Your task to perform on an android device: Go to network settings Image 0: 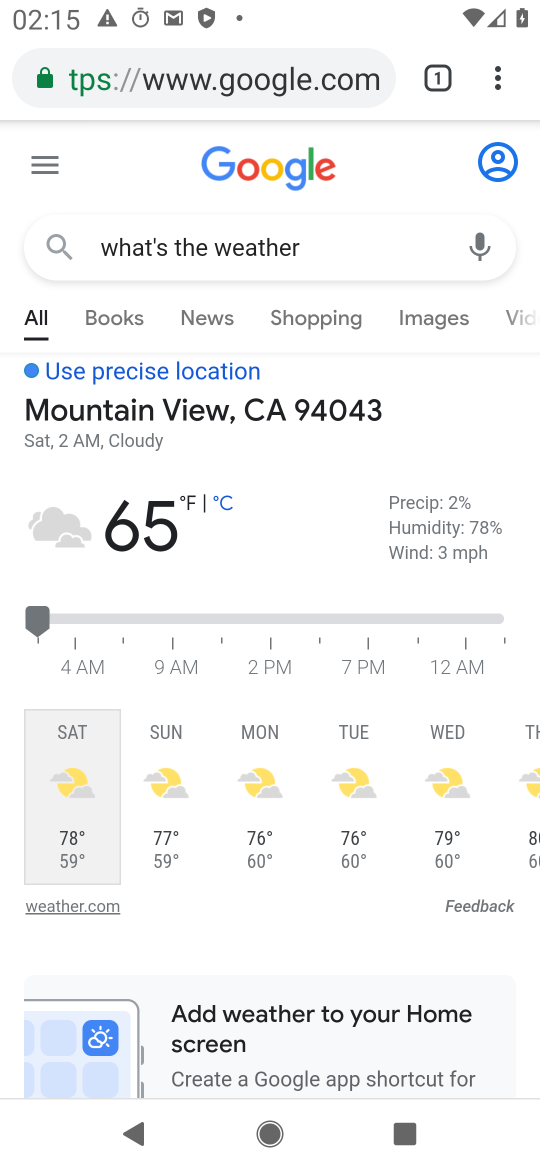
Step 0: press home button
Your task to perform on an android device: Go to network settings Image 1: 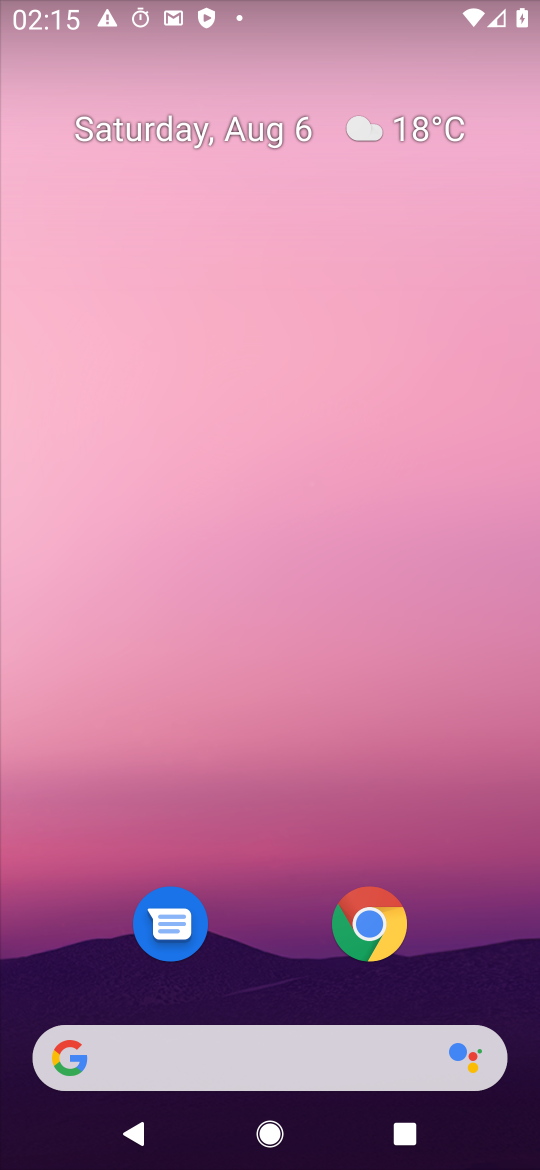
Step 1: drag from (167, 1096) to (393, 6)
Your task to perform on an android device: Go to network settings Image 2: 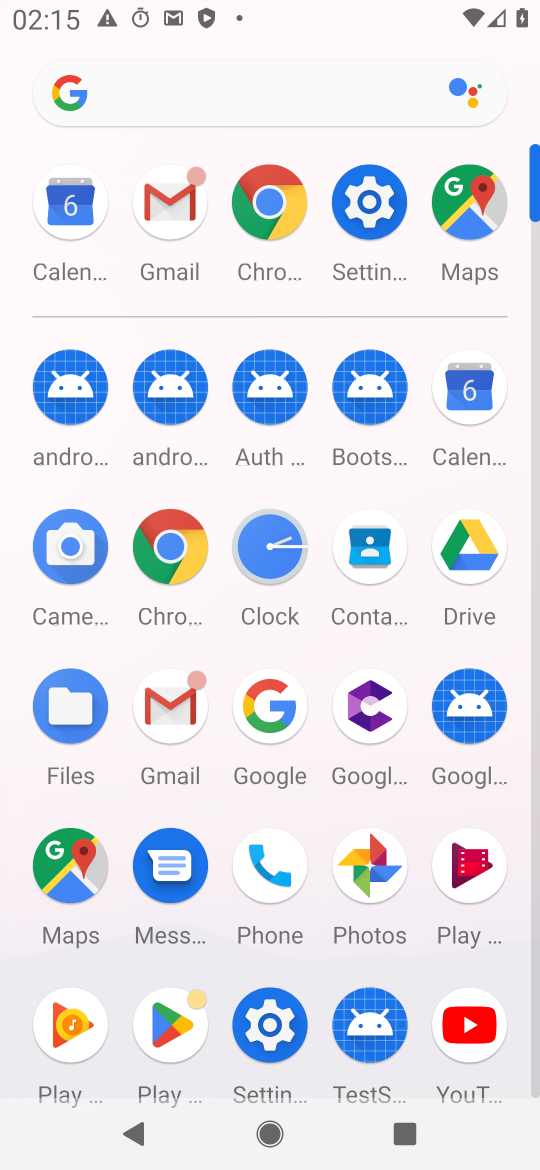
Step 2: click (365, 217)
Your task to perform on an android device: Go to network settings Image 3: 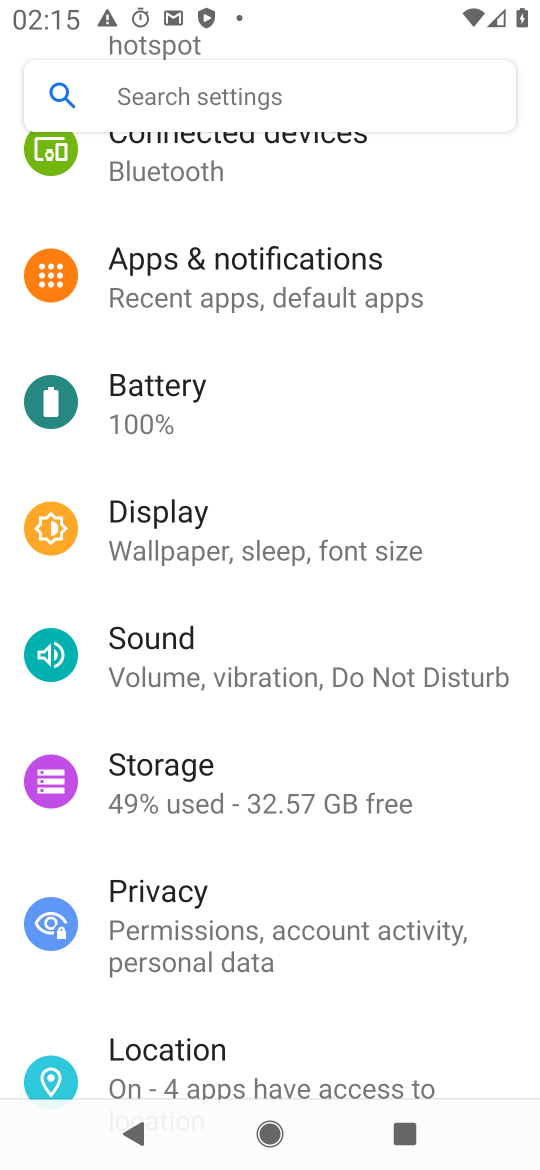
Step 3: click (320, 290)
Your task to perform on an android device: Go to network settings Image 4: 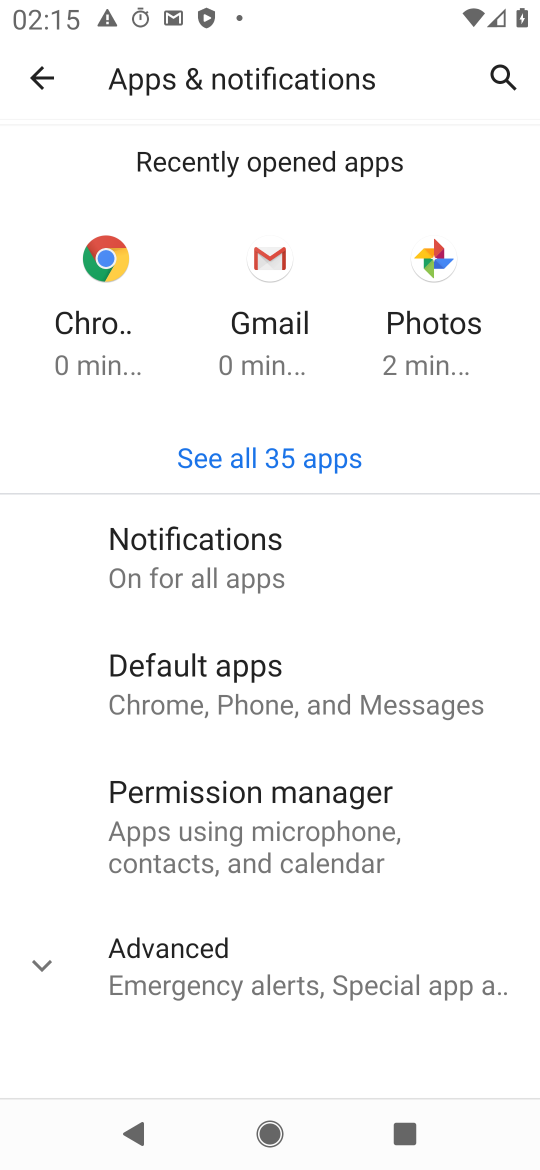
Step 4: press back button
Your task to perform on an android device: Go to network settings Image 5: 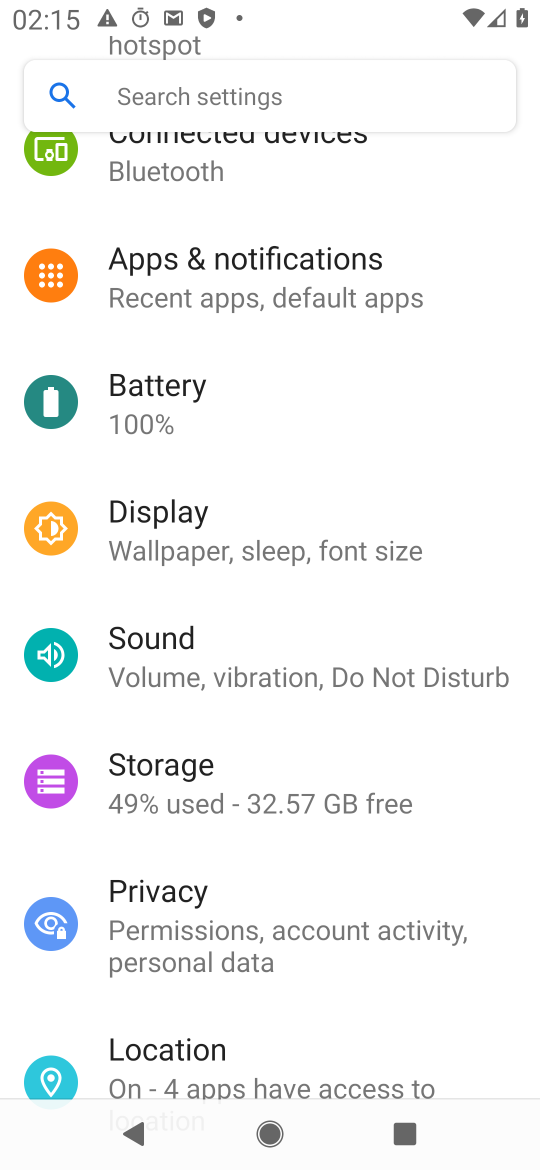
Step 5: drag from (449, 323) to (489, 1048)
Your task to perform on an android device: Go to network settings Image 6: 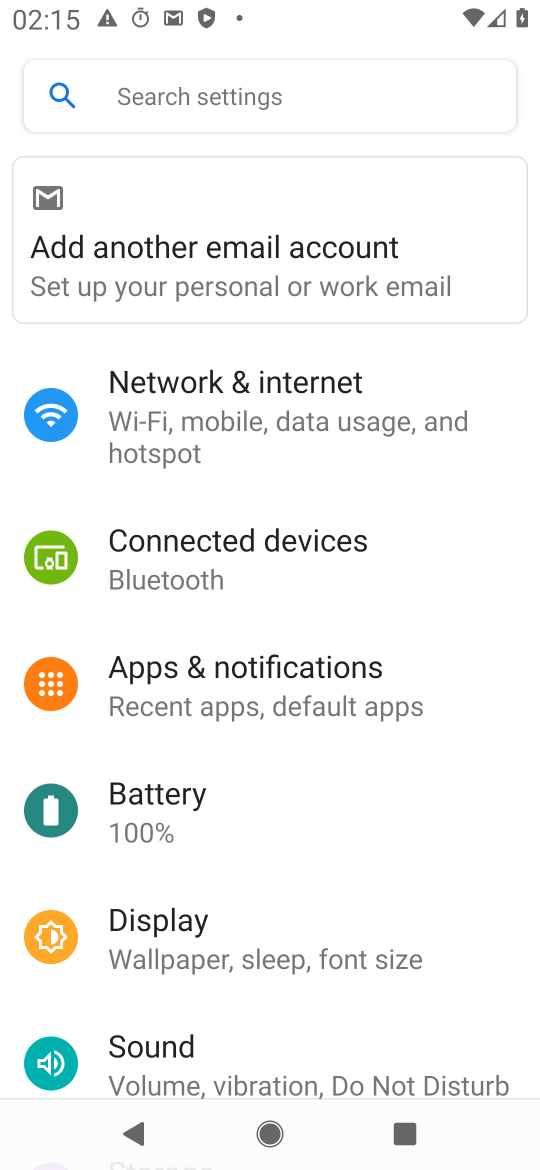
Step 6: click (321, 445)
Your task to perform on an android device: Go to network settings Image 7: 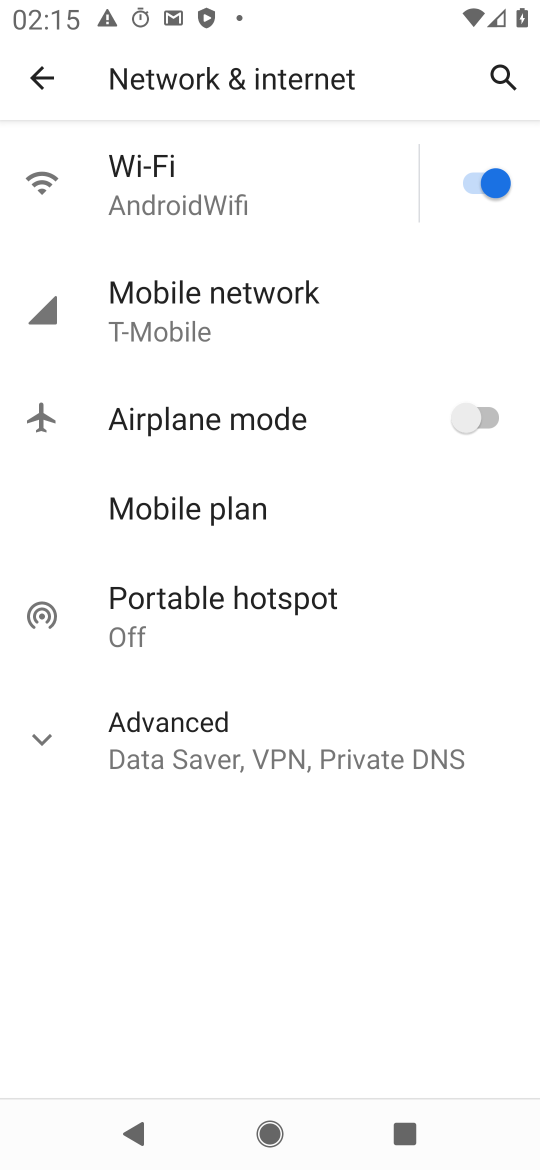
Step 7: task complete